Your task to perform on an android device: toggle notification dots Image 0: 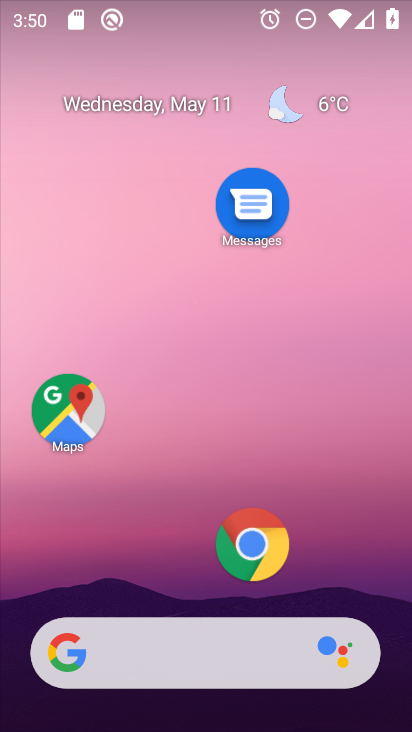
Step 0: drag from (143, 592) to (206, 133)
Your task to perform on an android device: toggle notification dots Image 1: 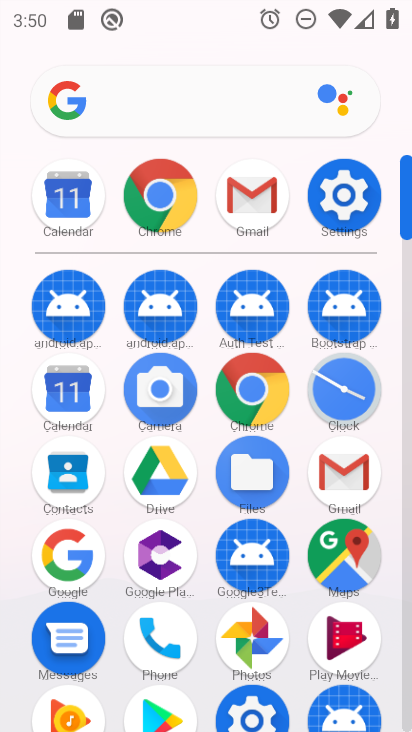
Step 1: click (352, 186)
Your task to perform on an android device: toggle notification dots Image 2: 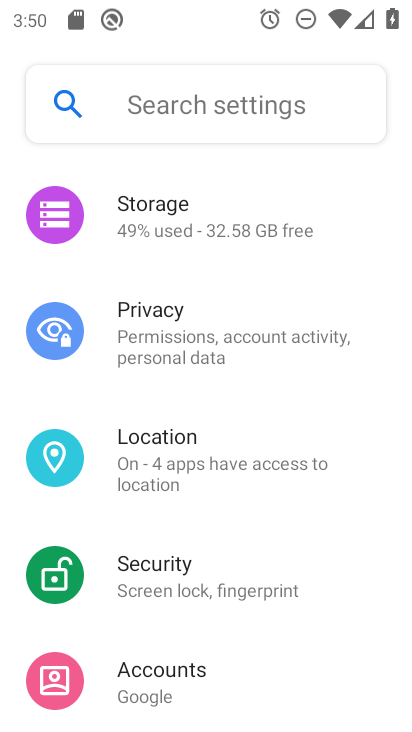
Step 2: drag from (262, 253) to (199, 731)
Your task to perform on an android device: toggle notification dots Image 3: 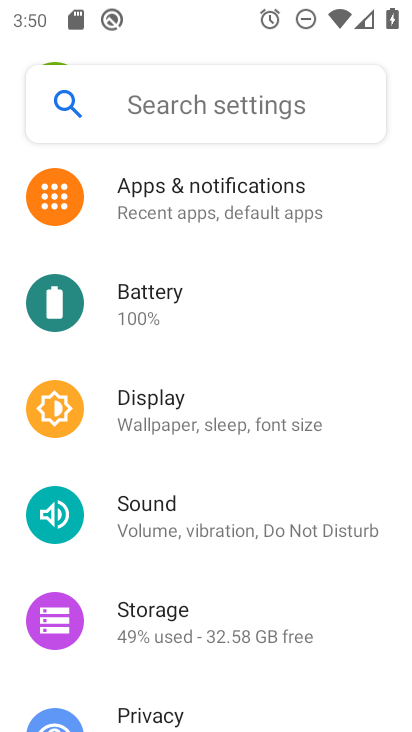
Step 3: click (222, 221)
Your task to perform on an android device: toggle notification dots Image 4: 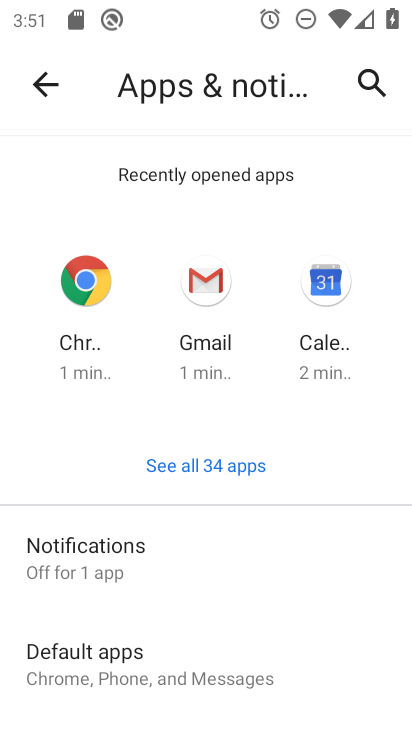
Step 4: drag from (132, 618) to (315, 101)
Your task to perform on an android device: toggle notification dots Image 5: 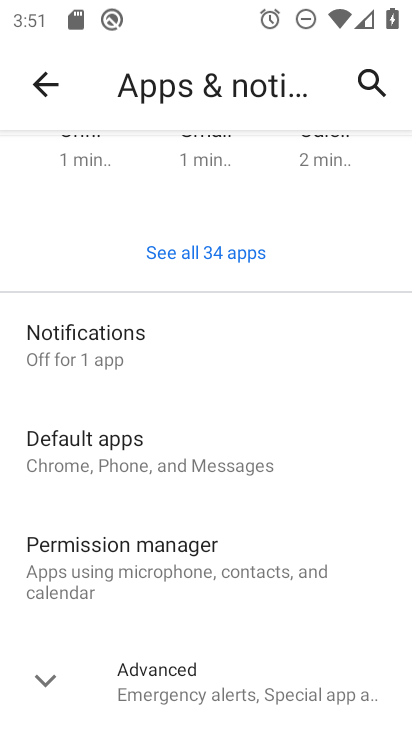
Step 5: click (132, 667)
Your task to perform on an android device: toggle notification dots Image 6: 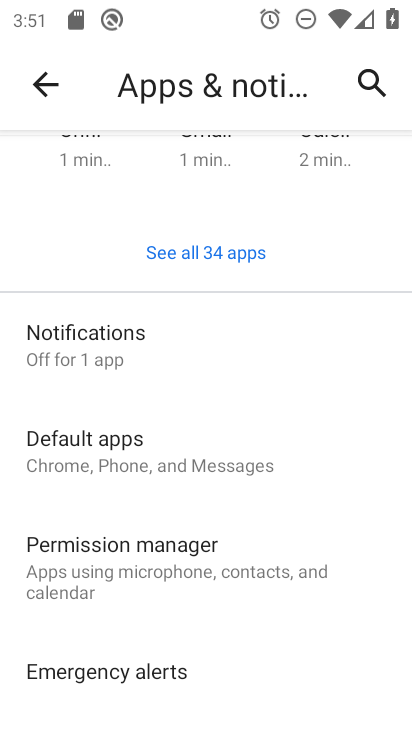
Step 6: click (118, 349)
Your task to perform on an android device: toggle notification dots Image 7: 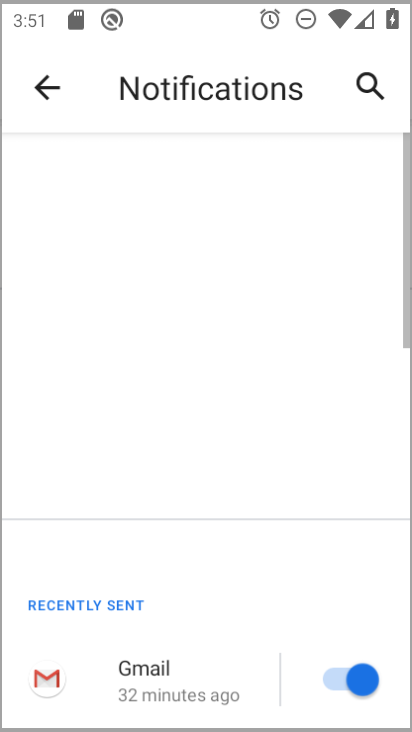
Step 7: drag from (190, 607) to (340, 138)
Your task to perform on an android device: toggle notification dots Image 8: 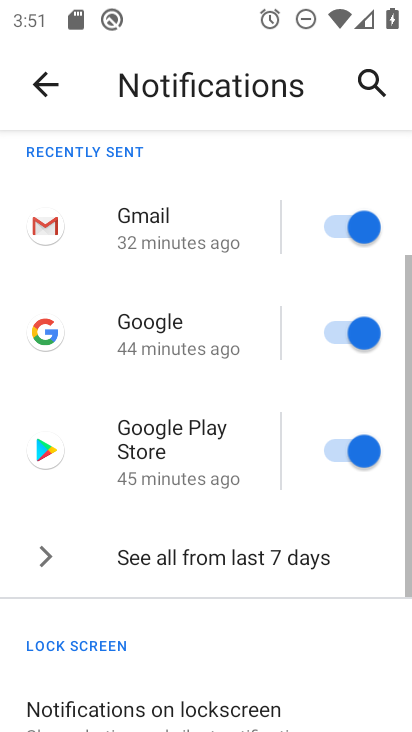
Step 8: drag from (218, 605) to (301, 125)
Your task to perform on an android device: toggle notification dots Image 9: 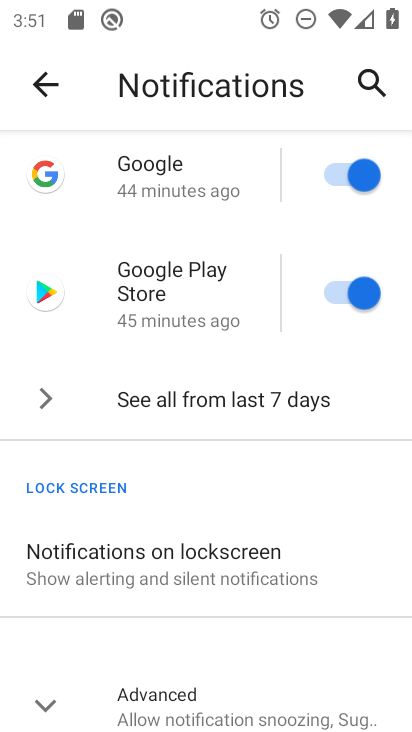
Step 9: click (163, 689)
Your task to perform on an android device: toggle notification dots Image 10: 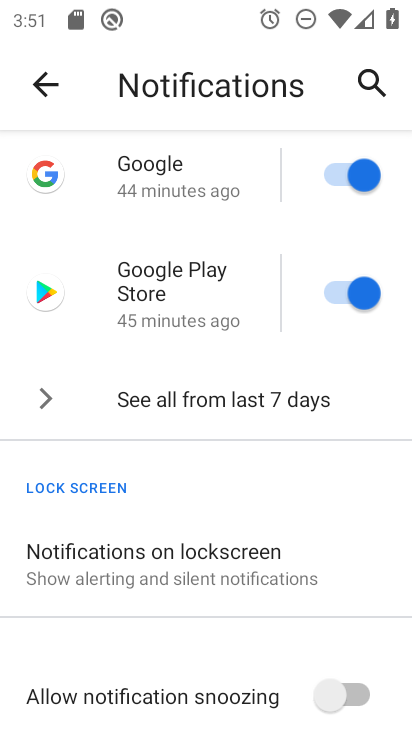
Step 10: drag from (198, 674) to (279, 175)
Your task to perform on an android device: toggle notification dots Image 11: 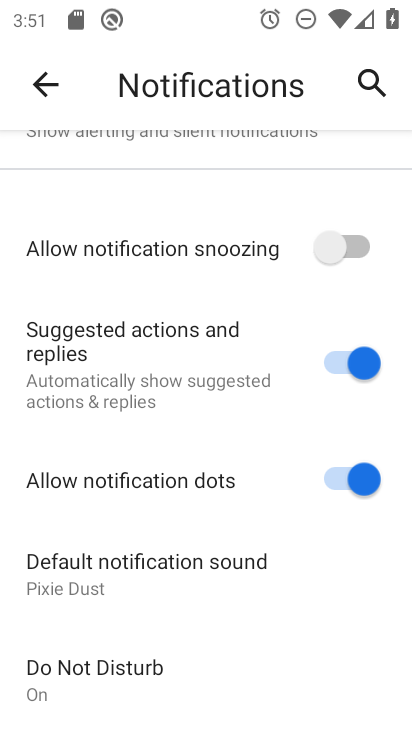
Step 11: click (345, 474)
Your task to perform on an android device: toggle notification dots Image 12: 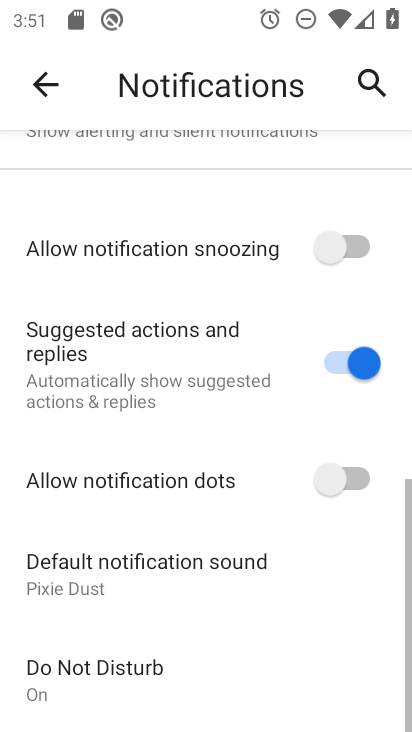
Step 12: task complete